Your task to perform on an android device: Open Android settings Image 0: 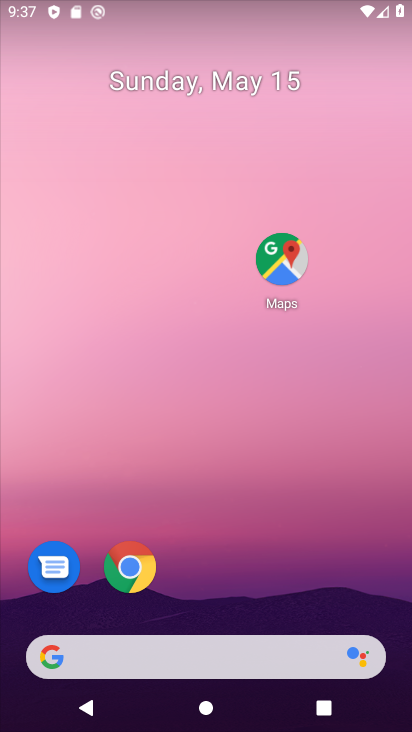
Step 0: drag from (234, 513) to (258, 70)
Your task to perform on an android device: Open Android settings Image 1: 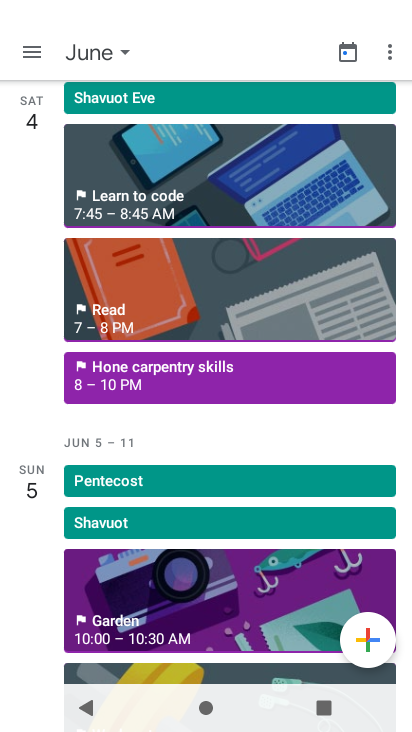
Step 1: press home button
Your task to perform on an android device: Open Android settings Image 2: 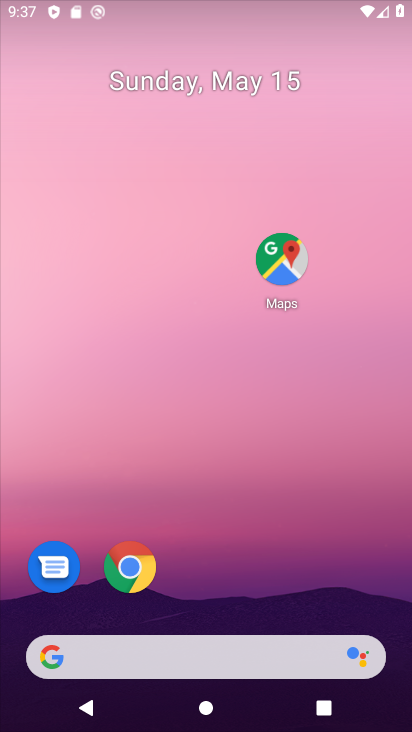
Step 2: drag from (229, 439) to (236, 103)
Your task to perform on an android device: Open Android settings Image 3: 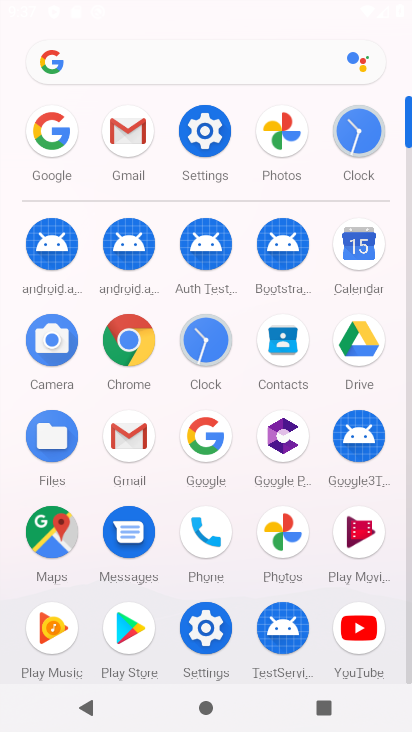
Step 3: click (211, 125)
Your task to perform on an android device: Open Android settings Image 4: 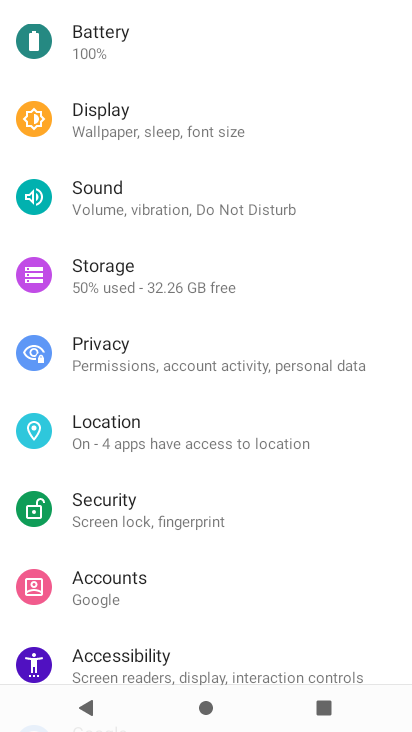
Step 4: task complete